Your task to perform on an android device: Open the web browser Image 0: 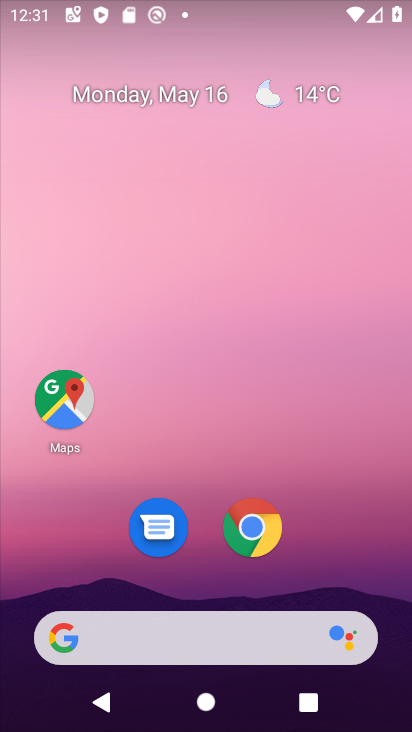
Step 0: drag from (217, 582) to (246, 105)
Your task to perform on an android device: Open the web browser Image 1: 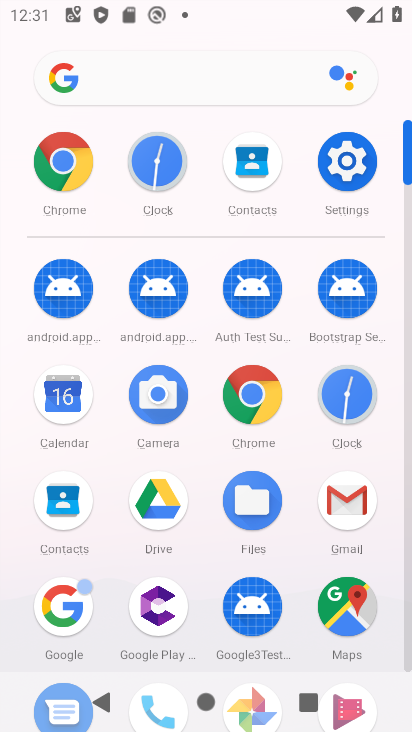
Step 1: click (61, 163)
Your task to perform on an android device: Open the web browser Image 2: 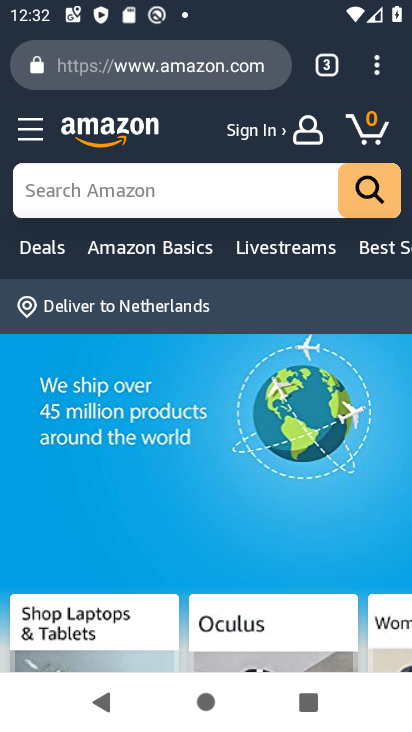
Step 2: task complete